Your task to perform on an android device: change the clock display to show seconds Image 0: 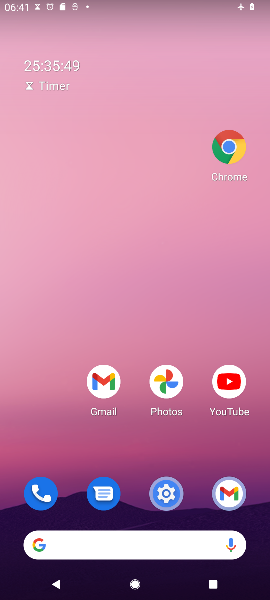
Step 0: press home button
Your task to perform on an android device: change the clock display to show seconds Image 1: 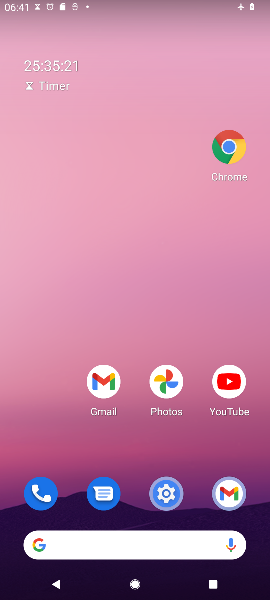
Step 1: drag from (127, 521) to (211, 104)
Your task to perform on an android device: change the clock display to show seconds Image 2: 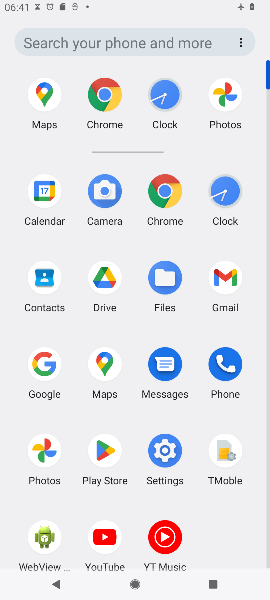
Step 2: click (168, 103)
Your task to perform on an android device: change the clock display to show seconds Image 3: 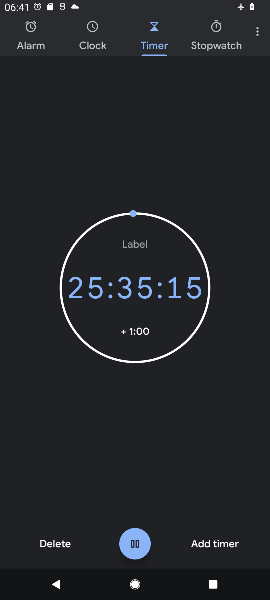
Step 3: click (267, 26)
Your task to perform on an android device: change the clock display to show seconds Image 4: 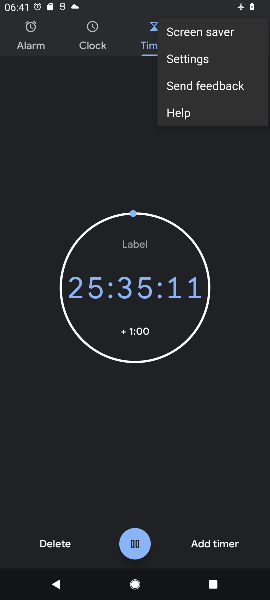
Step 4: click (193, 51)
Your task to perform on an android device: change the clock display to show seconds Image 5: 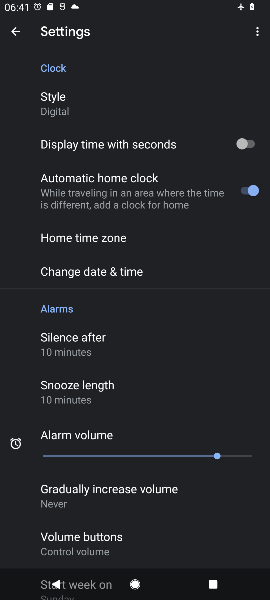
Step 5: click (246, 146)
Your task to perform on an android device: change the clock display to show seconds Image 6: 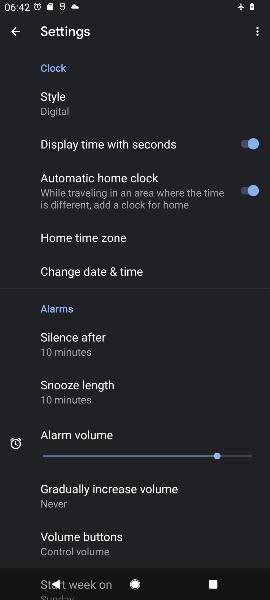
Step 6: task complete